Your task to perform on an android device: turn on data saver in the chrome app Image 0: 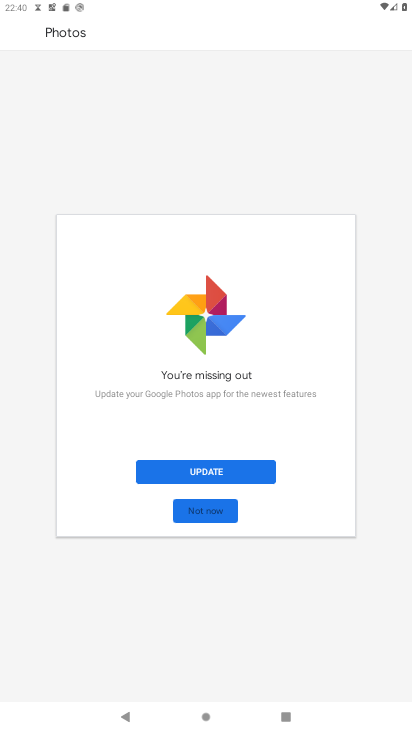
Step 0: click (210, 516)
Your task to perform on an android device: turn on data saver in the chrome app Image 1: 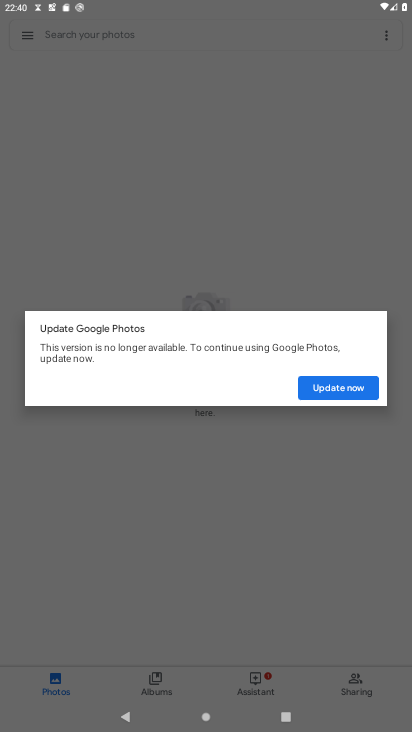
Step 1: click (342, 384)
Your task to perform on an android device: turn on data saver in the chrome app Image 2: 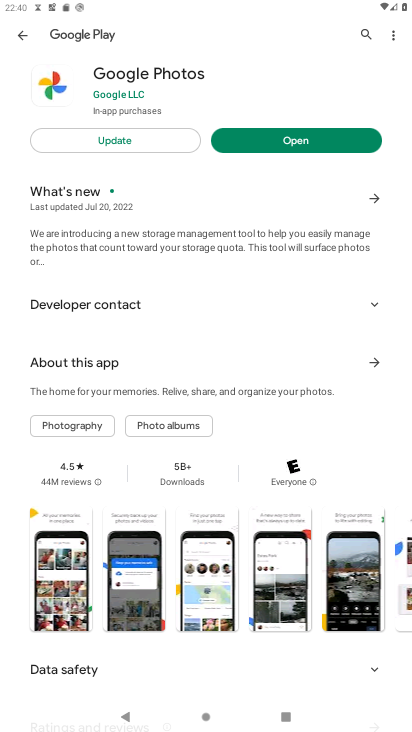
Step 2: press back button
Your task to perform on an android device: turn on data saver in the chrome app Image 3: 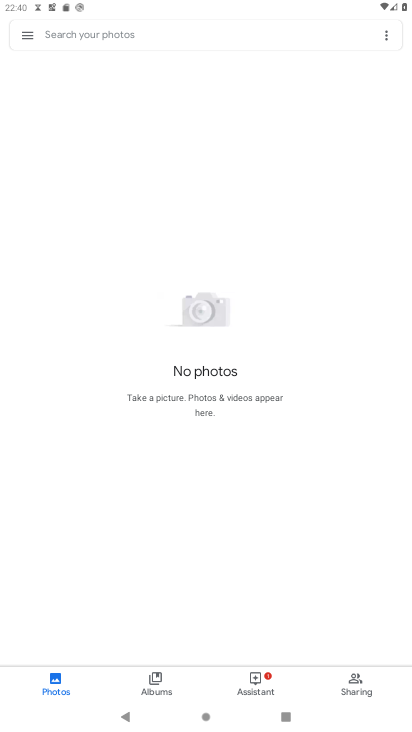
Step 3: press home button
Your task to perform on an android device: turn on data saver in the chrome app Image 4: 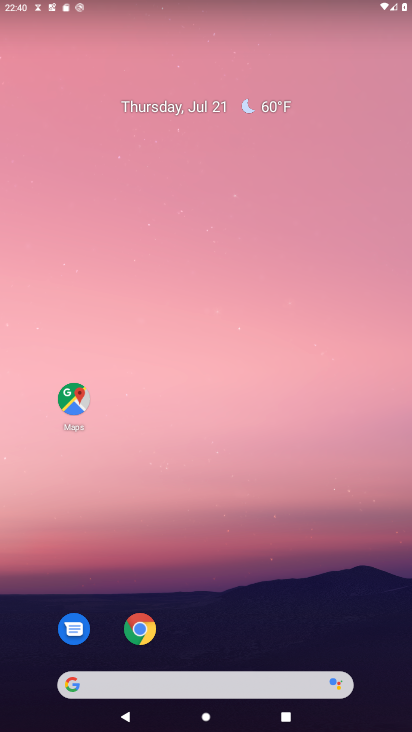
Step 4: drag from (281, 615) to (267, 227)
Your task to perform on an android device: turn on data saver in the chrome app Image 5: 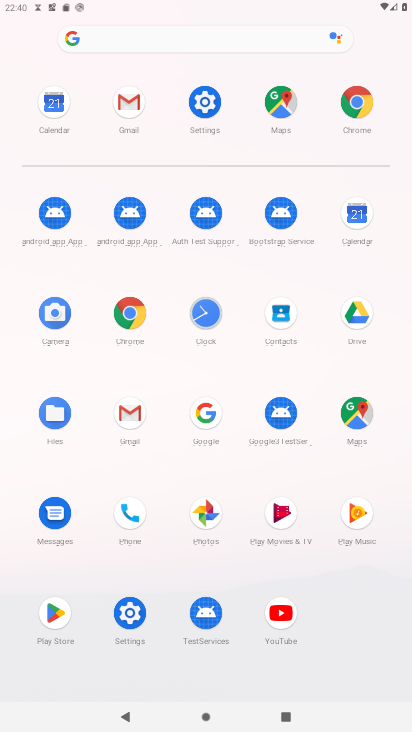
Step 5: click (124, 313)
Your task to perform on an android device: turn on data saver in the chrome app Image 6: 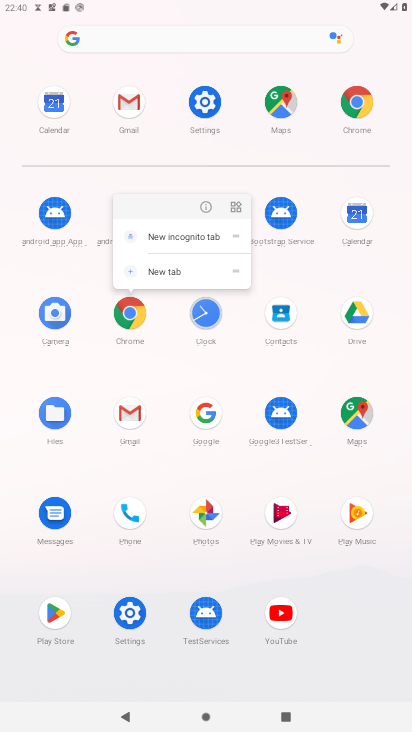
Step 6: click (136, 315)
Your task to perform on an android device: turn on data saver in the chrome app Image 7: 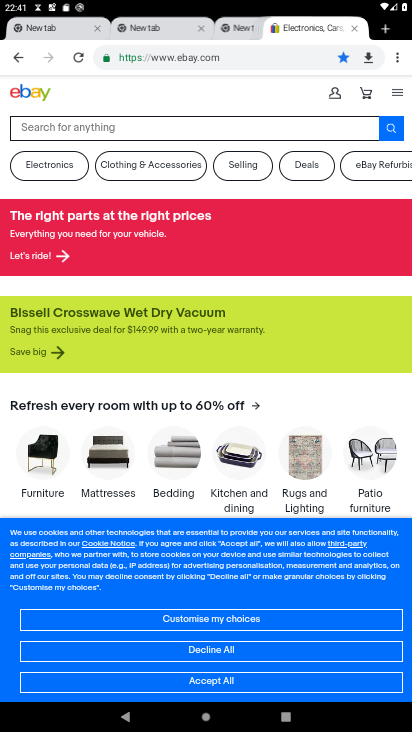
Step 7: click (401, 51)
Your task to perform on an android device: turn on data saver in the chrome app Image 8: 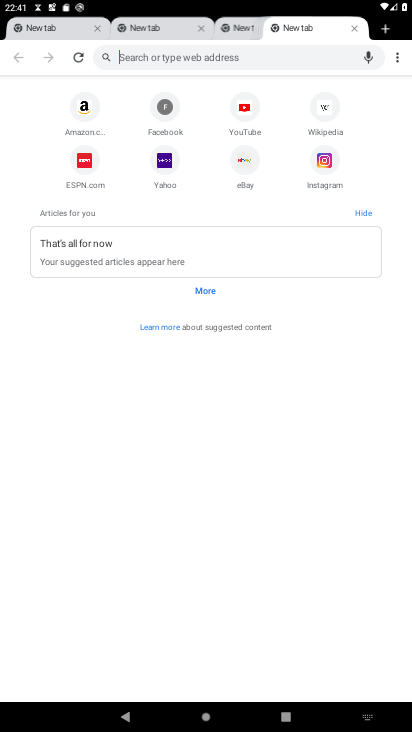
Step 8: click (404, 54)
Your task to perform on an android device: turn on data saver in the chrome app Image 9: 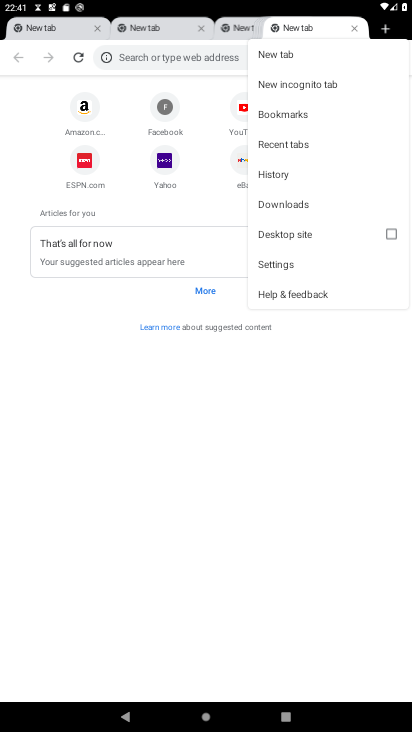
Step 9: click (291, 249)
Your task to perform on an android device: turn on data saver in the chrome app Image 10: 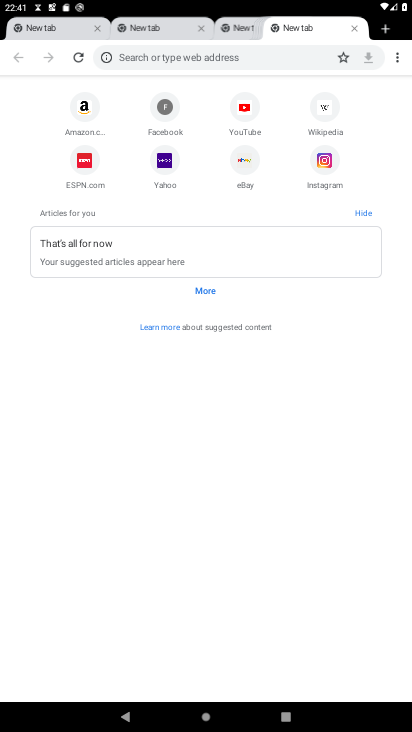
Step 10: click (393, 48)
Your task to perform on an android device: turn on data saver in the chrome app Image 11: 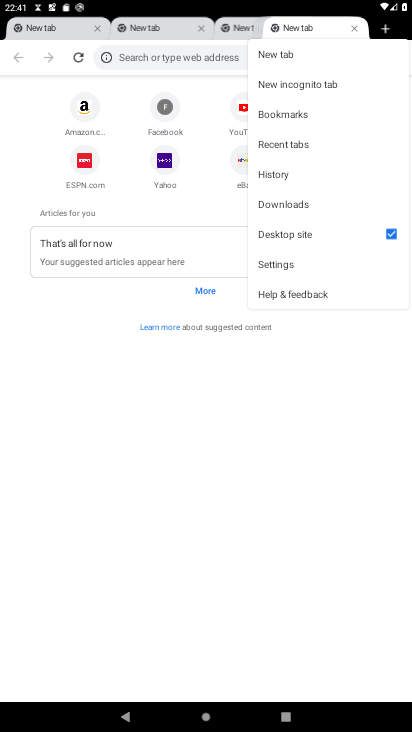
Step 11: click (296, 258)
Your task to perform on an android device: turn on data saver in the chrome app Image 12: 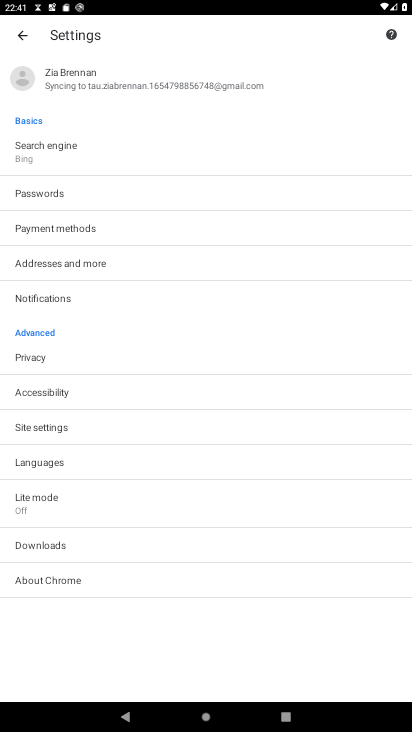
Step 12: click (68, 508)
Your task to perform on an android device: turn on data saver in the chrome app Image 13: 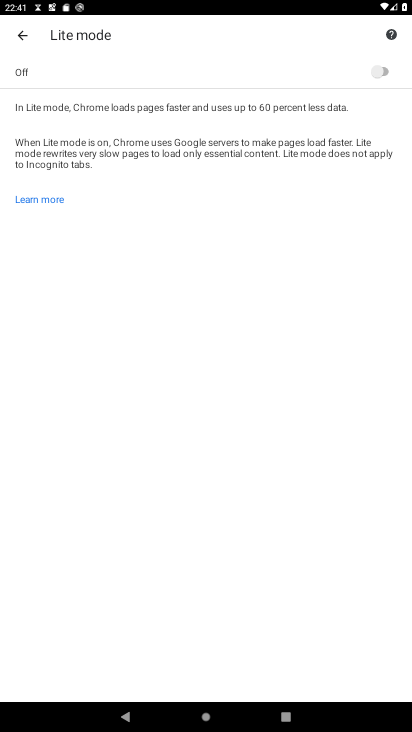
Step 13: click (390, 65)
Your task to perform on an android device: turn on data saver in the chrome app Image 14: 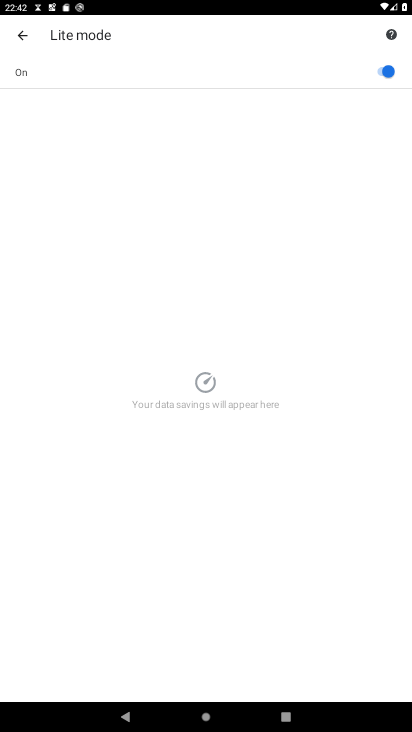
Step 14: task complete